Your task to perform on an android device: Go to privacy settings Image 0: 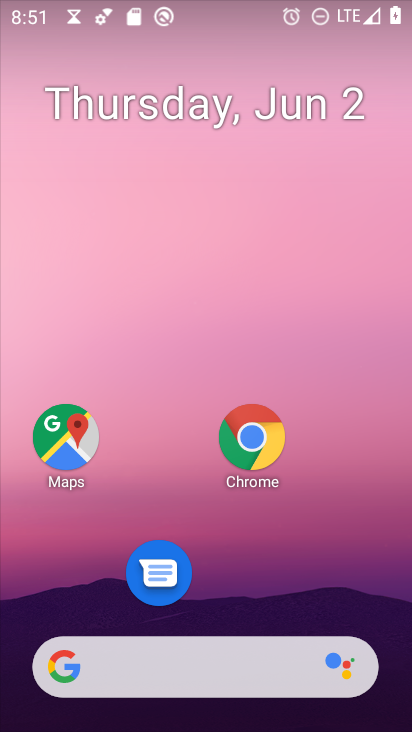
Step 0: press home button
Your task to perform on an android device: Go to privacy settings Image 1: 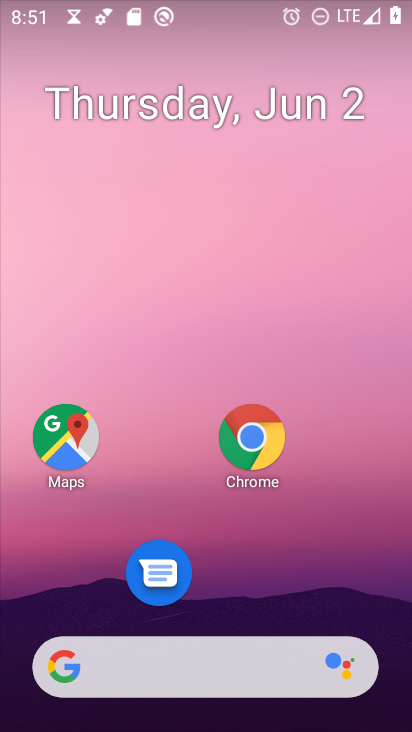
Step 1: drag from (177, 673) to (320, 200)
Your task to perform on an android device: Go to privacy settings Image 2: 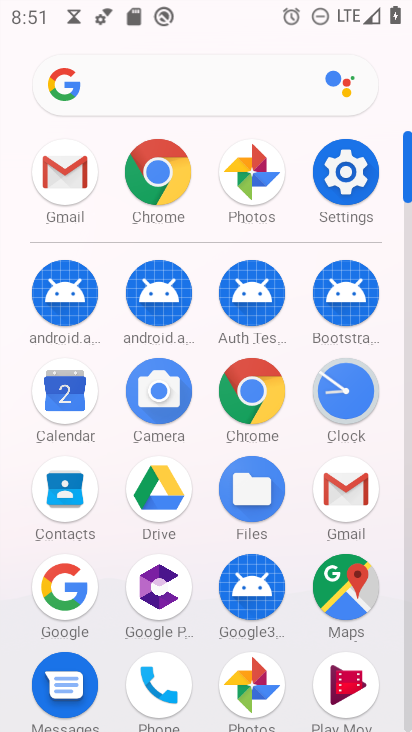
Step 2: click (354, 179)
Your task to perform on an android device: Go to privacy settings Image 3: 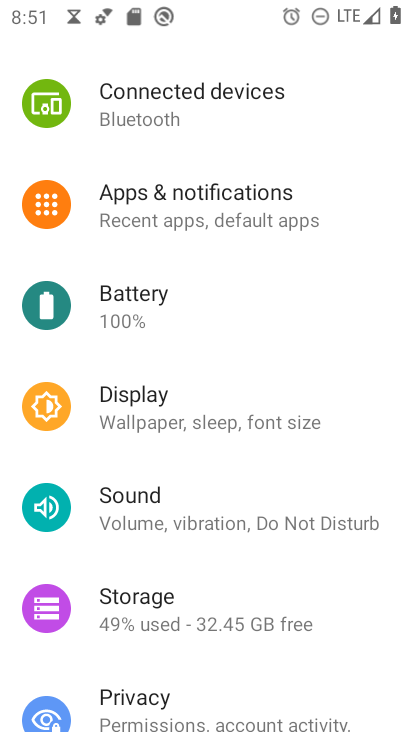
Step 3: drag from (213, 610) to (331, 224)
Your task to perform on an android device: Go to privacy settings Image 4: 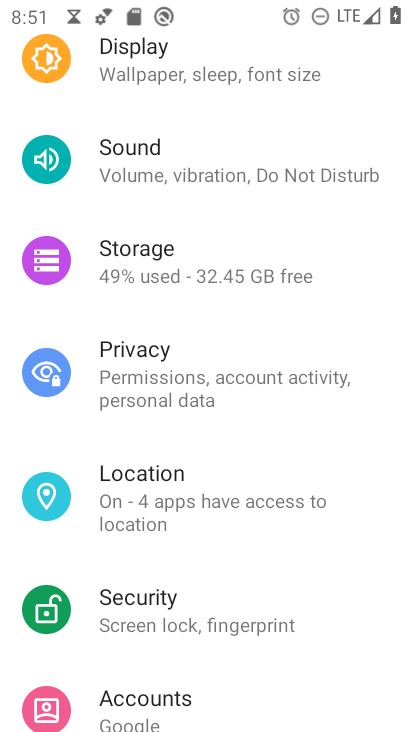
Step 4: click (163, 367)
Your task to perform on an android device: Go to privacy settings Image 5: 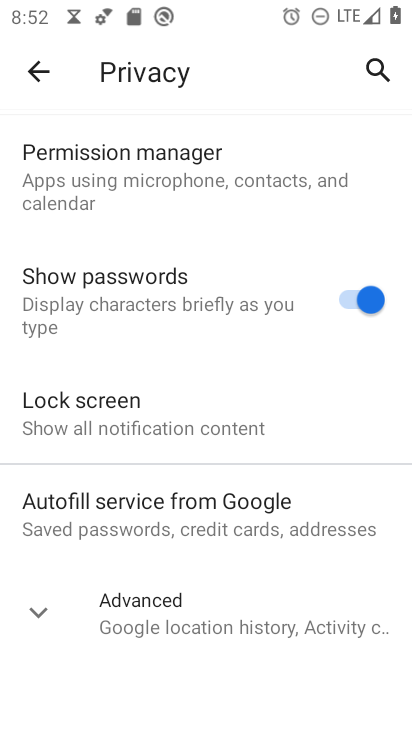
Step 5: task complete